Your task to perform on an android device: toggle notifications settings in the gmail app Image 0: 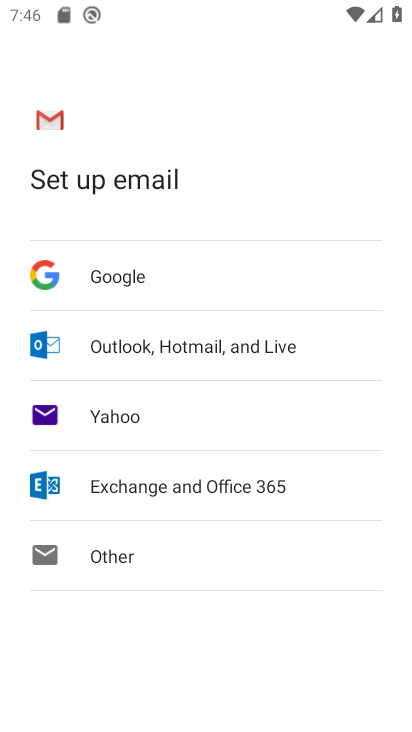
Step 0: press home button
Your task to perform on an android device: toggle notifications settings in the gmail app Image 1: 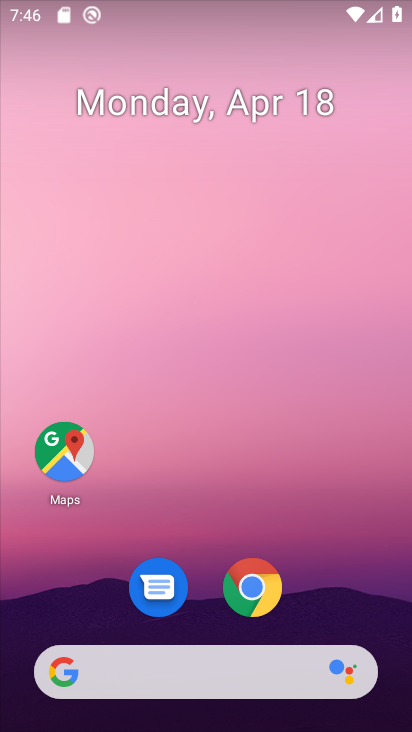
Step 1: drag from (248, 7) to (262, 572)
Your task to perform on an android device: toggle notifications settings in the gmail app Image 2: 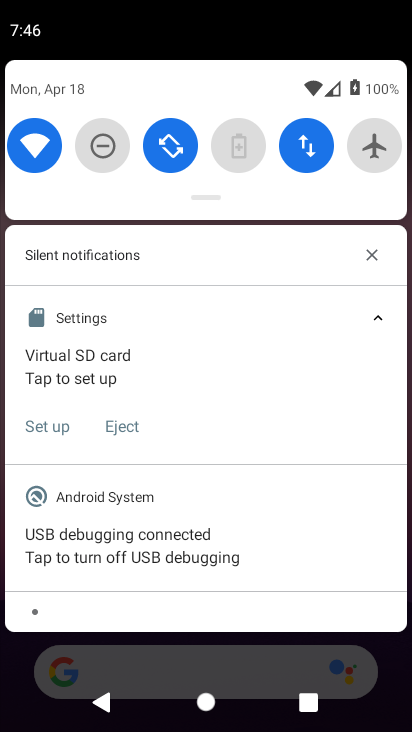
Step 2: drag from (223, 103) to (244, 608)
Your task to perform on an android device: toggle notifications settings in the gmail app Image 3: 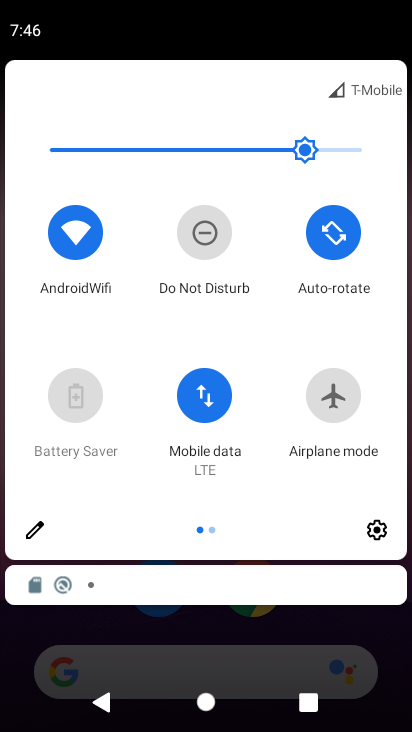
Step 3: click (379, 527)
Your task to perform on an android device: toggle notifications settings in the gmail app Image 4: 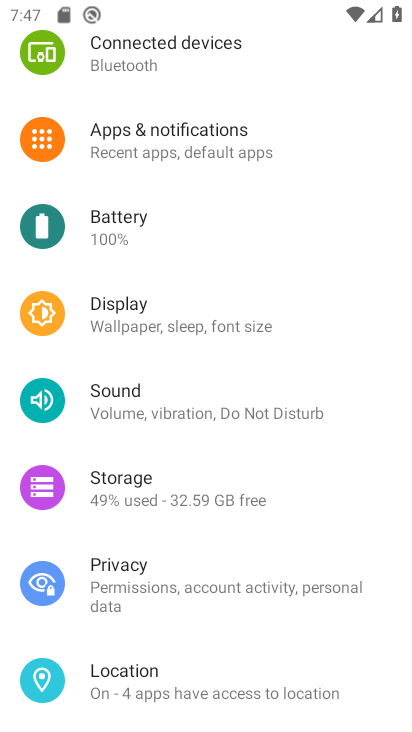
Step 4: click (118, 143)
Your task to perform on an android device: toggle notifications settings in the gmail app Image 5: 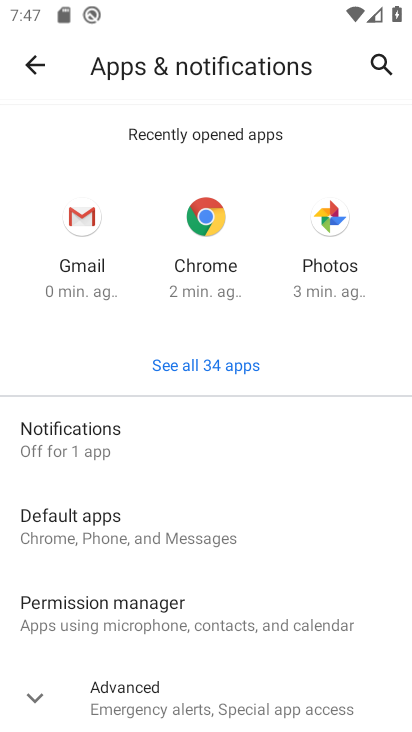
Step 5: click (78, 228)
Your task to perform on an android device: toggle notifications settings in the gmail app Image 6: 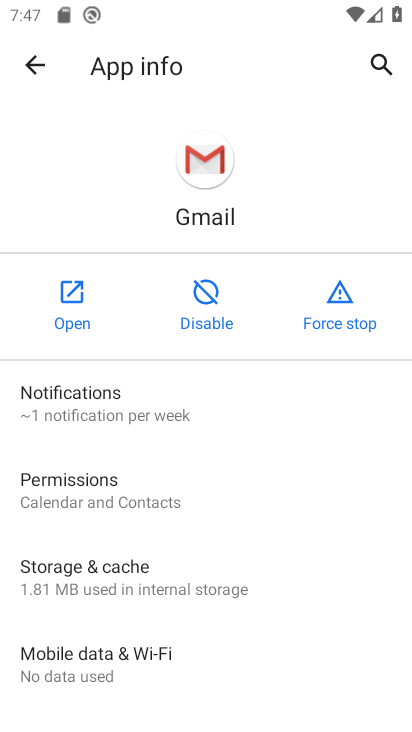
Step 6: click (159, 399)
Your task to perform on an android device: toggle notifications settings in the gmail app Image 7: 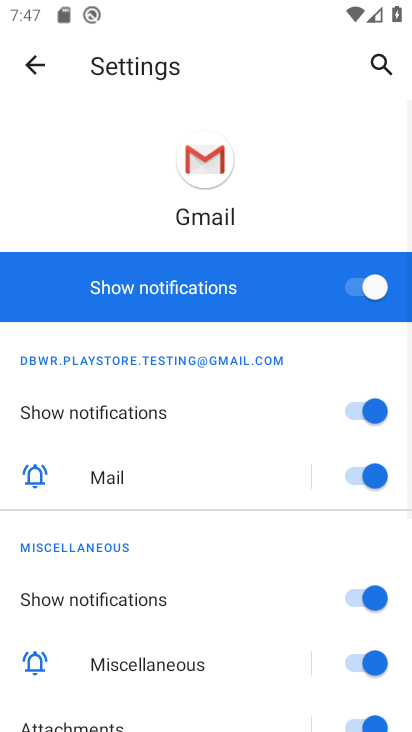
Step 7: click (367, 295)
Your task to perform on an android device: toggle notifications settings in the gmail app Image 8: 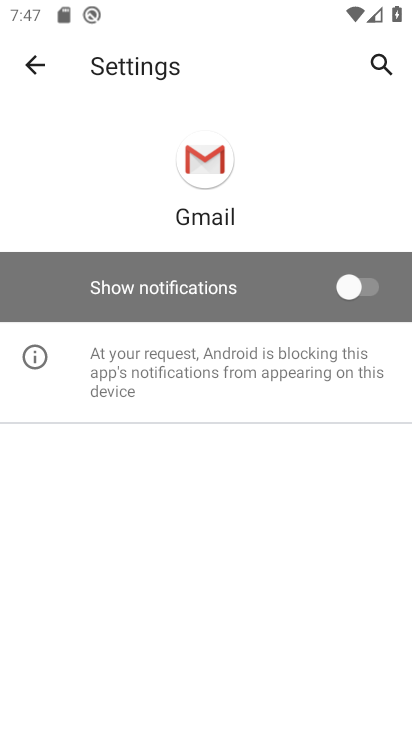
Step 8: click (367, 295)
Your task to perform on an android device: toggle notifications settings in the gmail app Image 9: 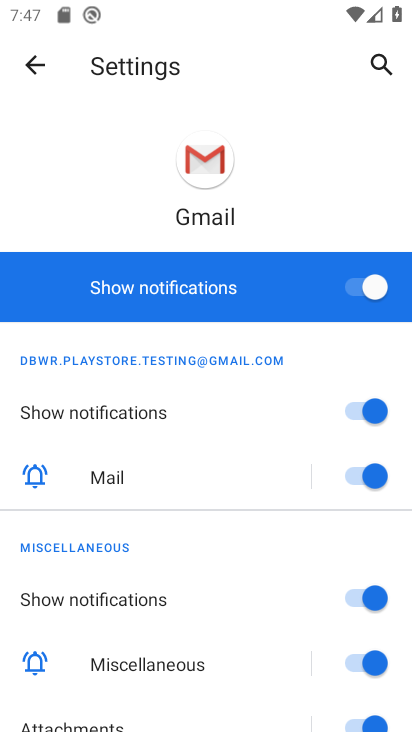
Step 9: click (367, 295)
Your task to perform on an android device: toggle notifications settings in the gmail app Image 10: 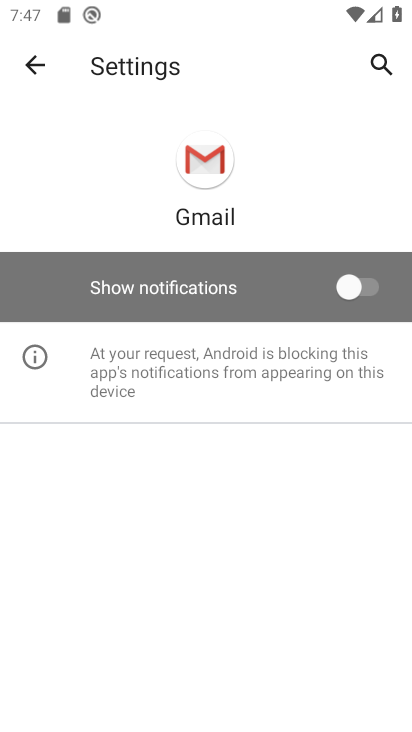
Step 10: task complete